Your task to perform on an android device: turn off sleep mode Image 0: 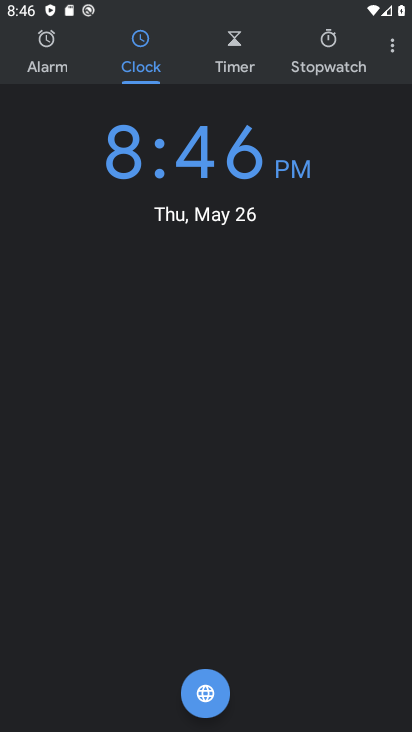
Step 0: press back button
Your task to perform on an android device: turn off sleep mode Image 1: 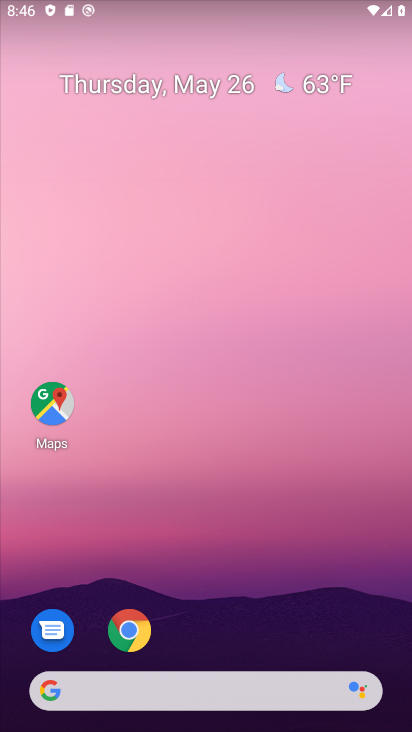
Step 1: drag from (240, 724) to (173, 219)
Your task to perform on an android device: turn off sleep mode Image 2: 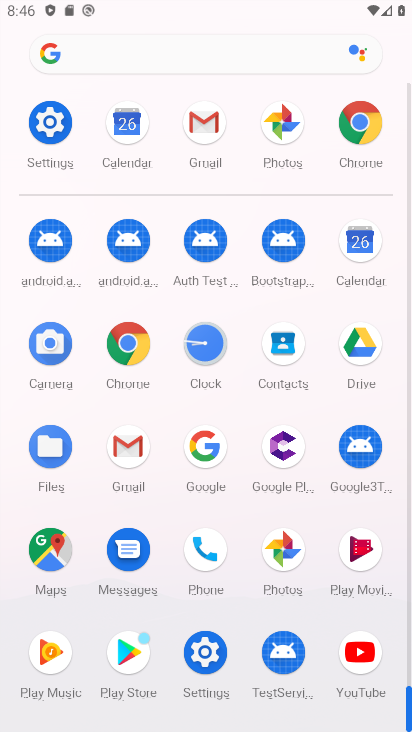
Step 2: click (195, 651)
Your task to perform on an android device: turn off sleep mode Image 3: 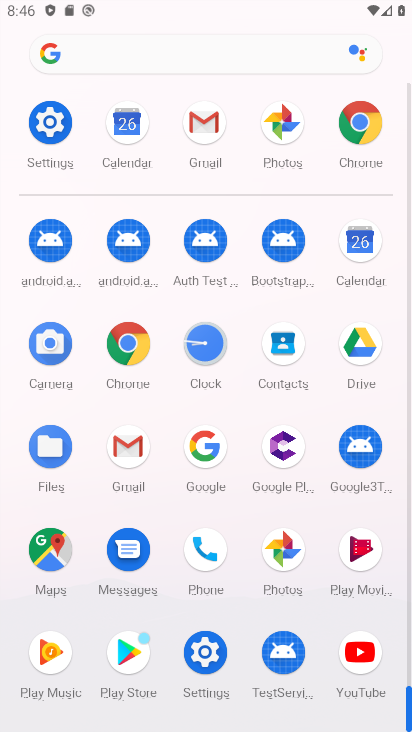
Step 3: click (195, 651)
Your task to perform on an android device: turn off sleep mode Image 4: 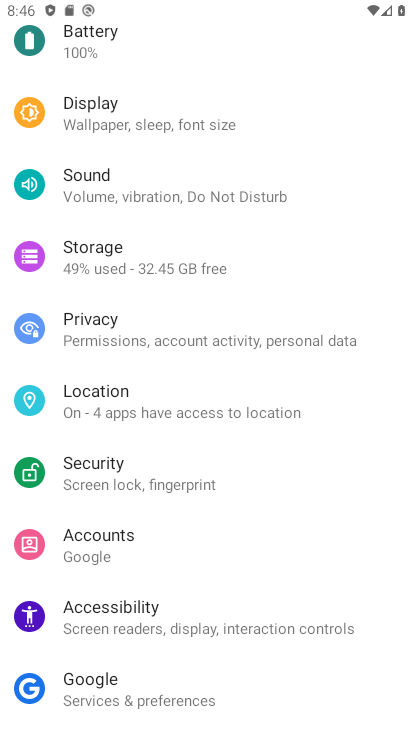
Step 4: click (102, 117)
Your task to perform on an android device: turn off sleep mode Image 5: 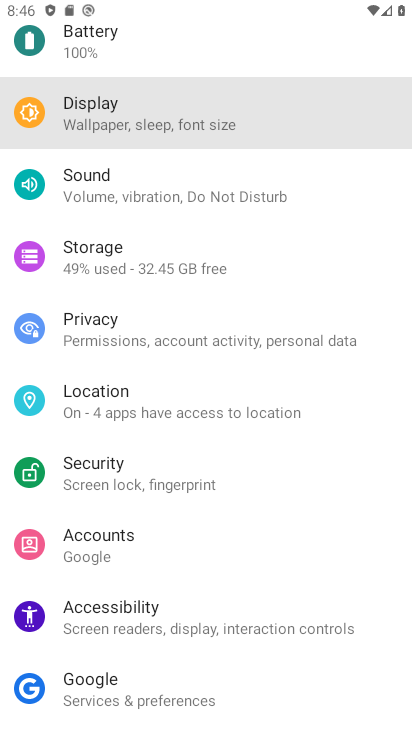
Step 5: click (102, 117)
Your task to perform on an android device: turn off sleep mode Image 6: 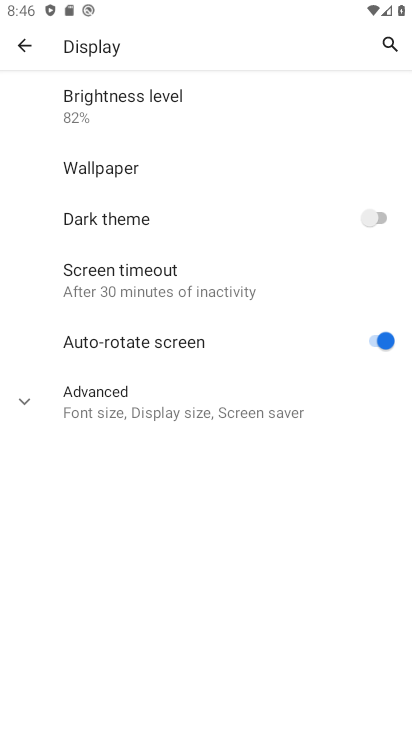
Step 6: click (107, 273)
Your task to perform on an android device: turn off sleep mode Image 7: 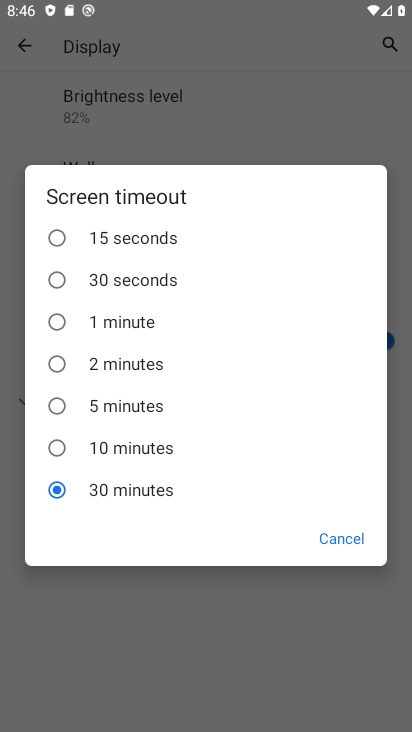
Step 7: task complete